Your task to perform on an android device: set the stopwatch Image 0: 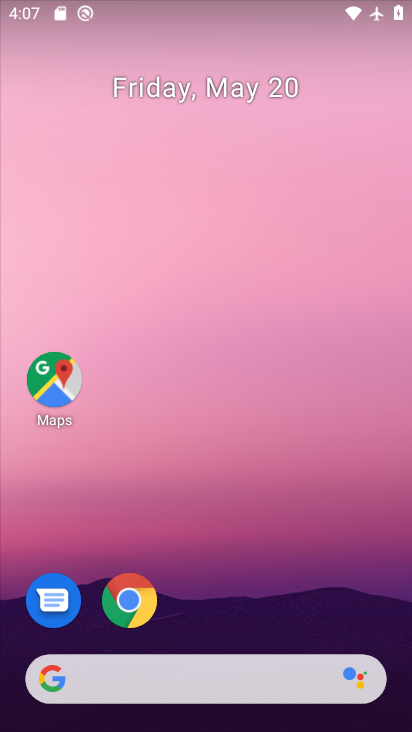
Step 0: drag from (266, 481) to (201, 26)
Your task to perform on an android device: set the stopwatch Image 1: 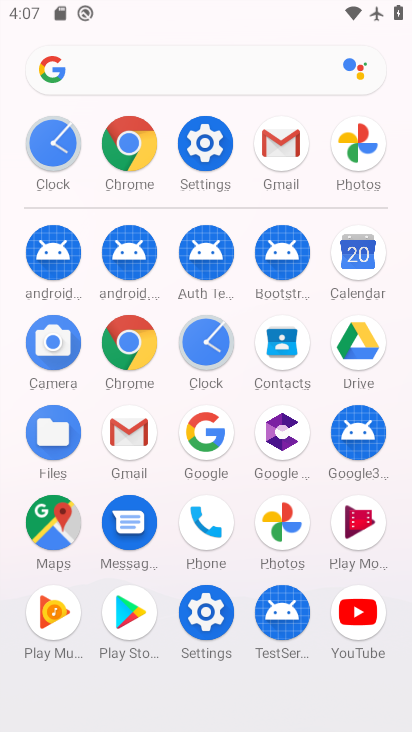
Step 1: click (206, 339)
Your task to perform on an android device: set the stopwatch Image 2: 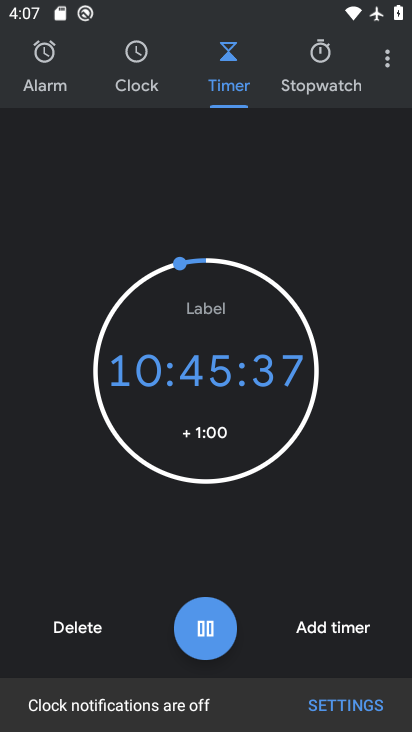
Step 2: click (315, 69)
Your task to perform on an android device: set the stopwatch Image 3: 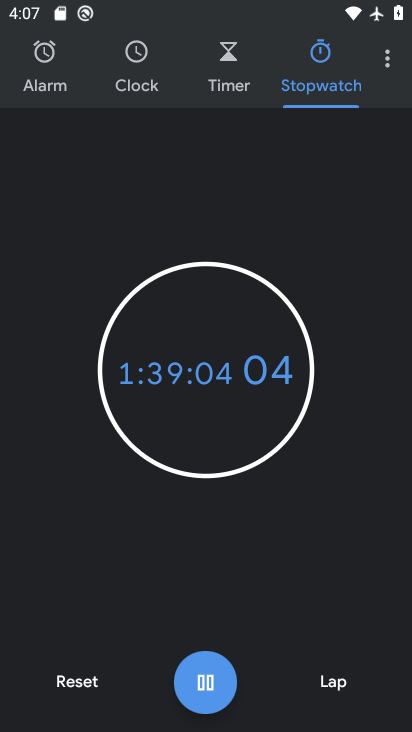
Step 3: click (77, 681)
Your task to perform on an android device: set the stopwatch Image 4: 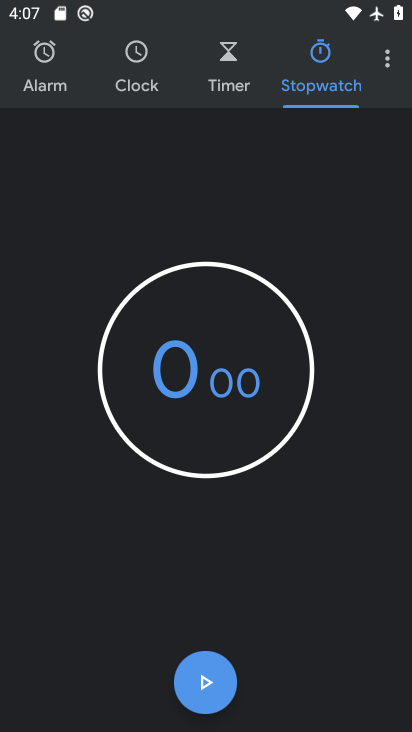
Step 4: click (213, 668)
Your task to perform on an android device: set the stopwatch Image 5: 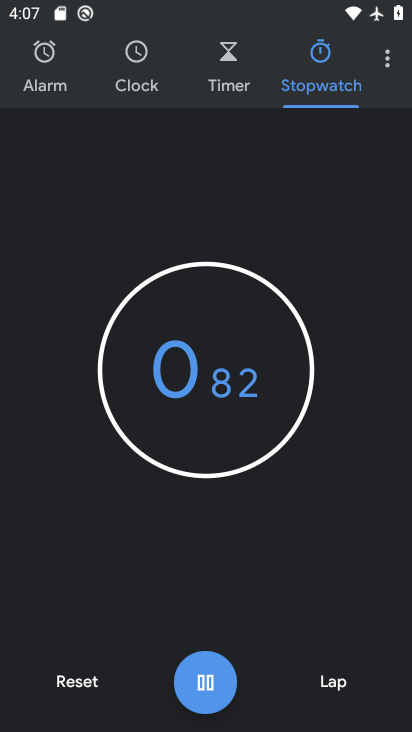
Step 5: task complete